Your task to perform on an android device: Open Maps and search for coffee Image 0: 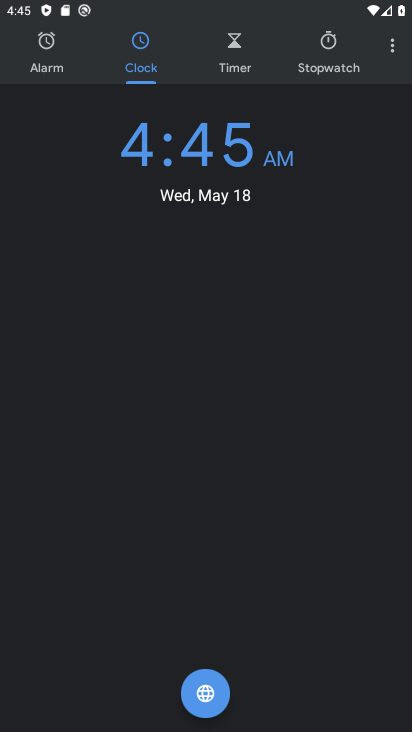
Step 0: press back button
Your task to perform on an android device: Open Maps and search for coffee Image 1: 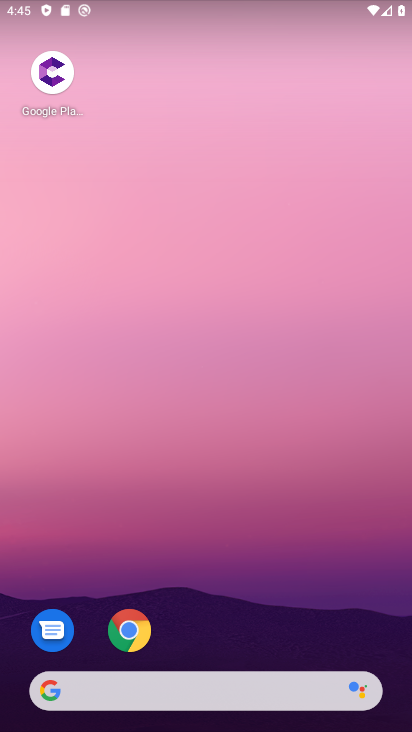
Step 1: drag from (250, 634) to (223, 167)
Your task to perform on an android device: Open Maps and search for coffee Image 2: 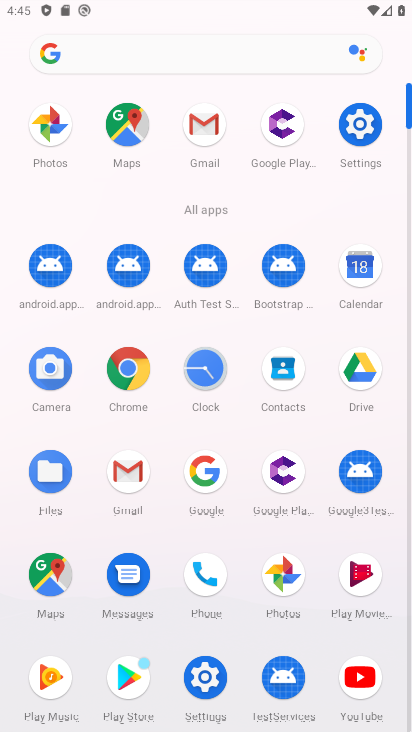
Step 2: click (47, 577)
Your task to perform on an android device: Open Maps and search for coffee Image 3: 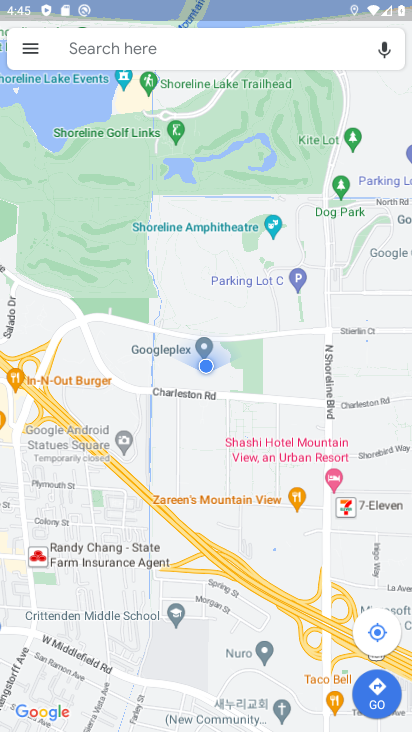
Step 3: click (199, 51)
Your task to perform on an android device: Open Maps and search for coffee Image 4: 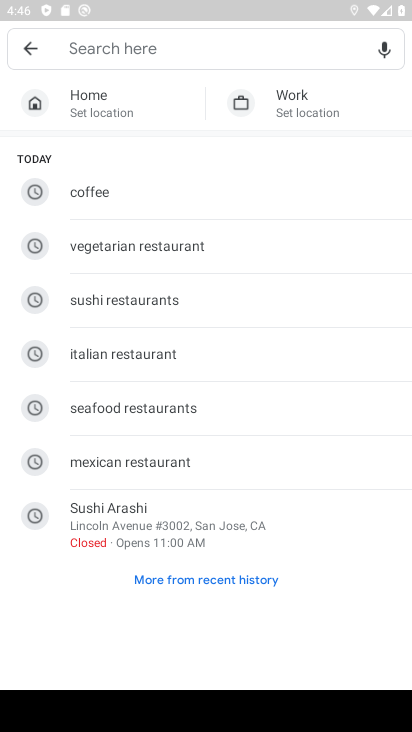
Step 4: type "coffee"
Your task to perform on an android device: Open Maps and search for coffee Image 5: 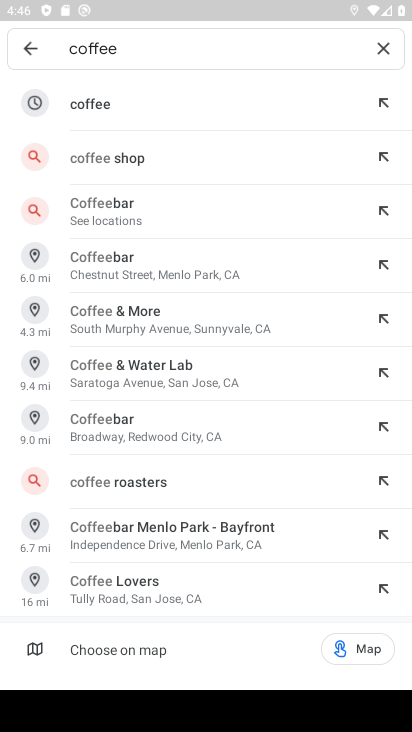
Step 5: click (101, 107)
Your task to perform on an android device: Open Maps and search for coffee Image 6: 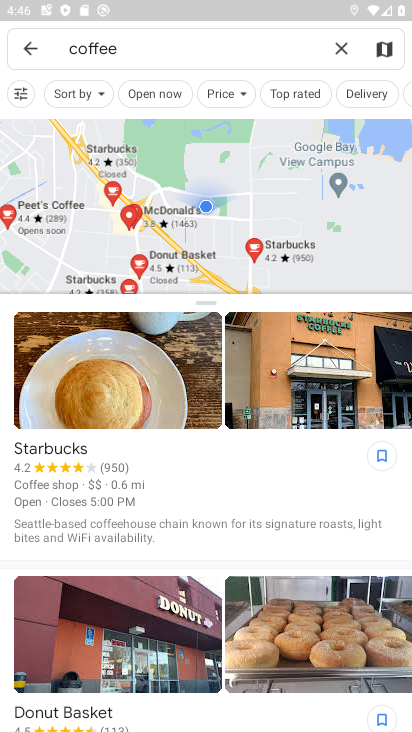
Step 6: task complete